Your task to perform on an android device: turn off location history Image 0: 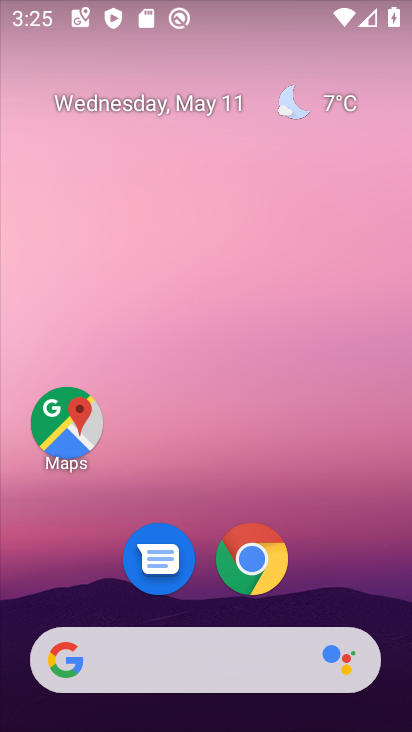
Step 0: press home button
Your task to perform on an android device: turn off location history Image 1: 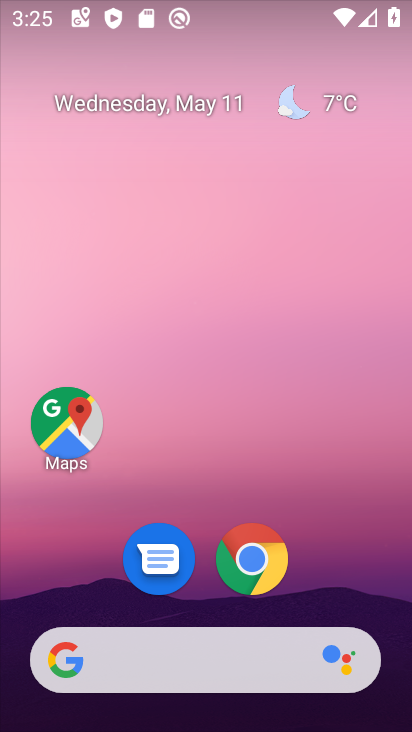
Step 1: drag from (198, 630) to (238, 271)
Your task to perform on an android device: turn off location history Image 2: 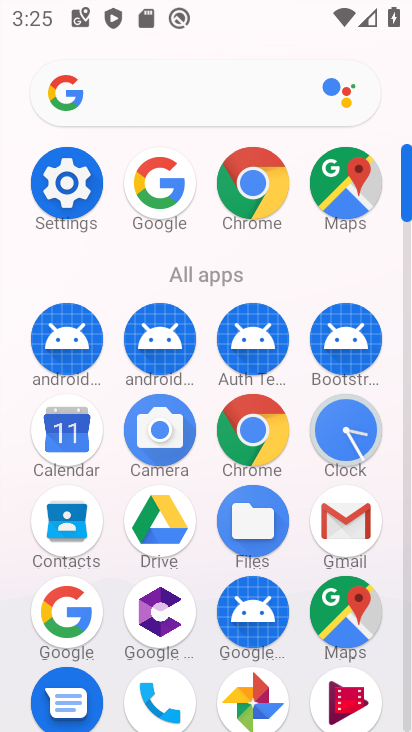
Step 2: click (63, 188)
Your task to perform on an android device: turn off location history Image 3: 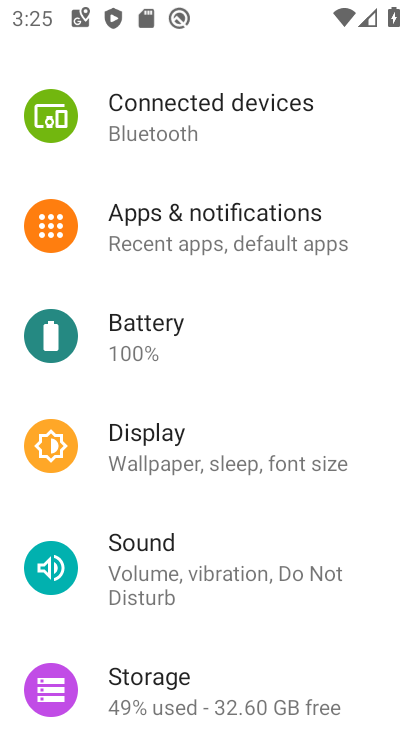
Step 3: drag from (191, 692) to (216, 220)
Your task to perform on an android device: turn off location history Image 4: 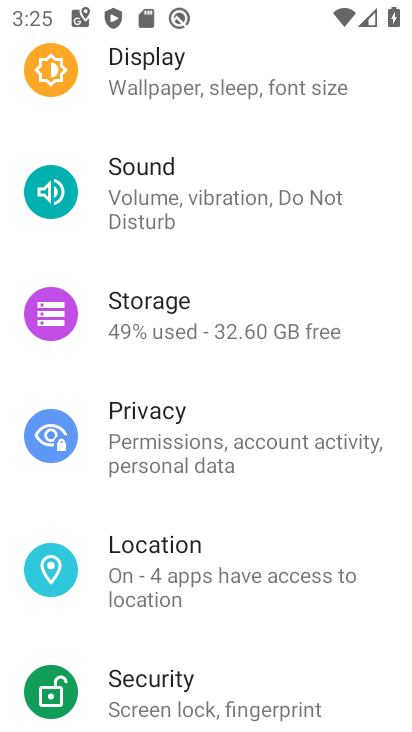
Step 4: click (165, 558)
Your task to perform on an android device: turn off location history Image 5: 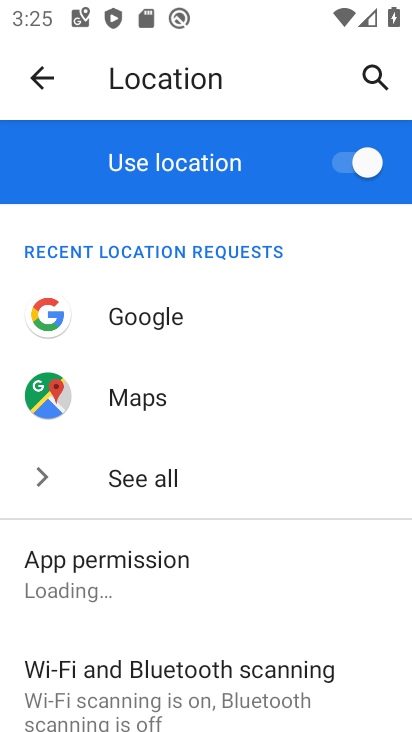
Step 5: click (132, 576)
Your task to perform on an android device: turn off location history Image 6: 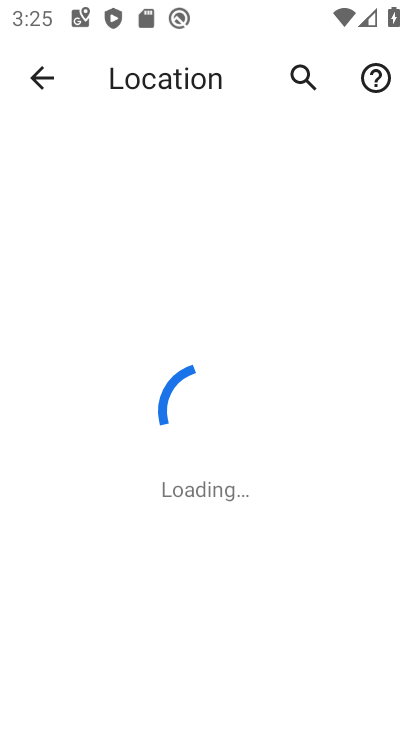
Step 6: click (124, 701)
Your task to perform on an android device: turn off location history Image 7: 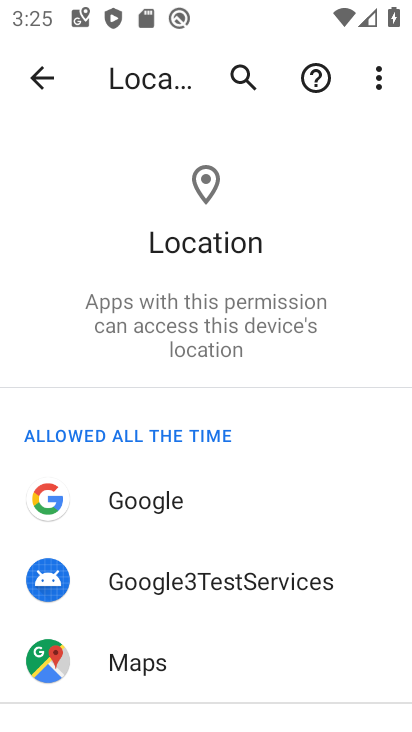
Step 7: click (46, 74)
Your task to perform on an android device: turn off location history Image 8: 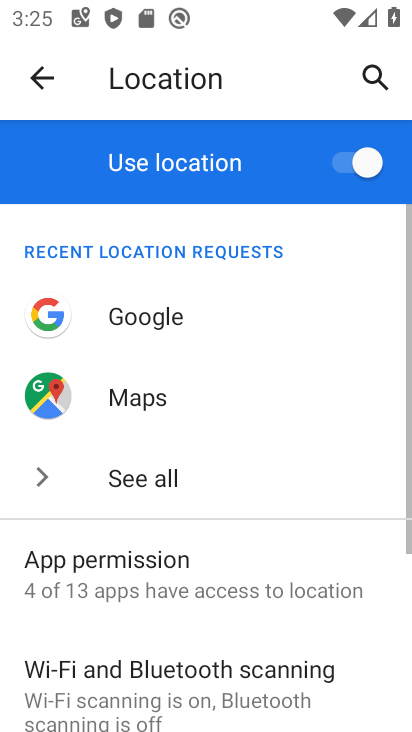
Step 8: drag from (195, 691) to (179, 304)
Your task to perform on an android device: turn off location history Image 9: 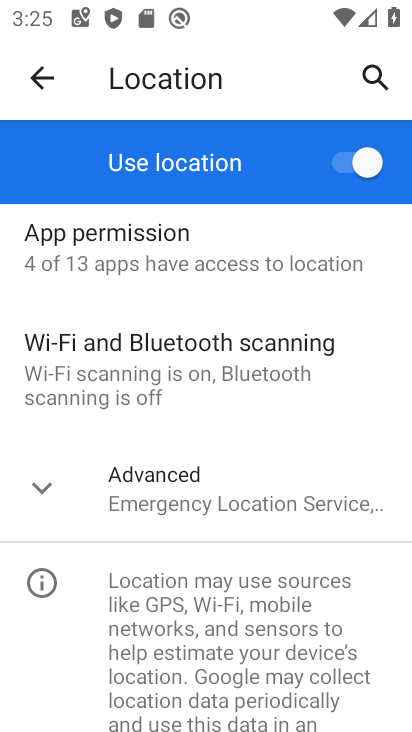
Step 9: click (30, 492)
Your task to perform on an android device: turn off location history Image 10: 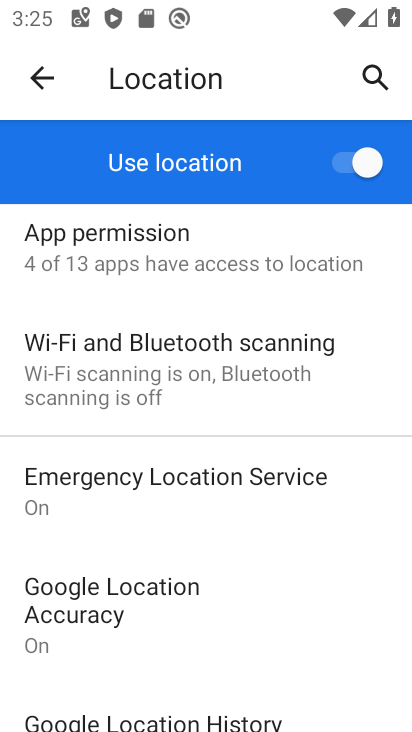
Step 10: drag from (127, 699) to (169, 410)
Your task to perform on an android device: turn off location history Image 11: 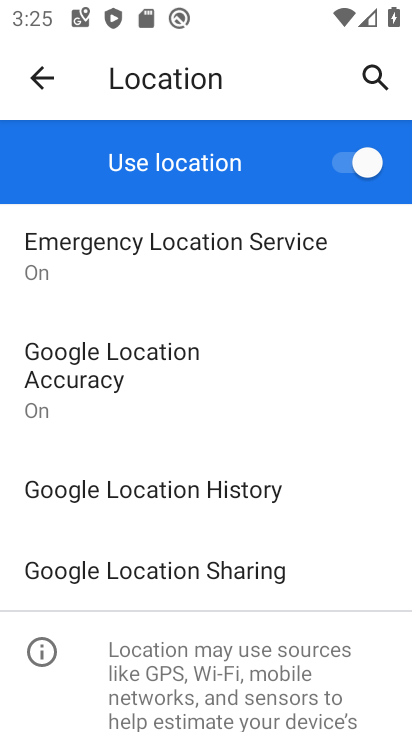
Step 11: click (104, 495)
Your task to perform on an android device: turn off location history Image 12: 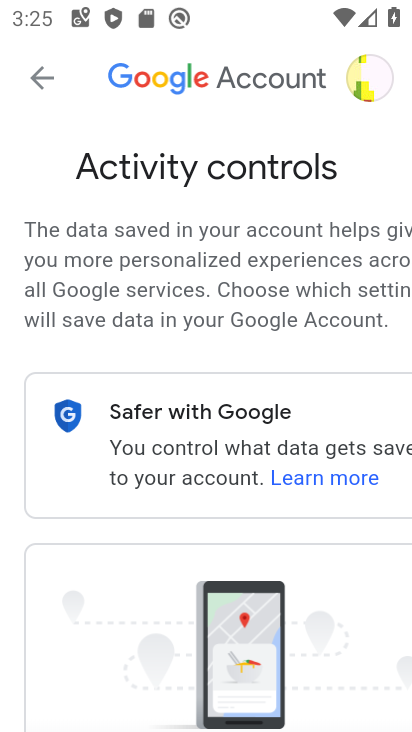
Step 12: drag from (310, 697) to (253, 207)
Your task to perform on an android device: turn off location history Image 13: 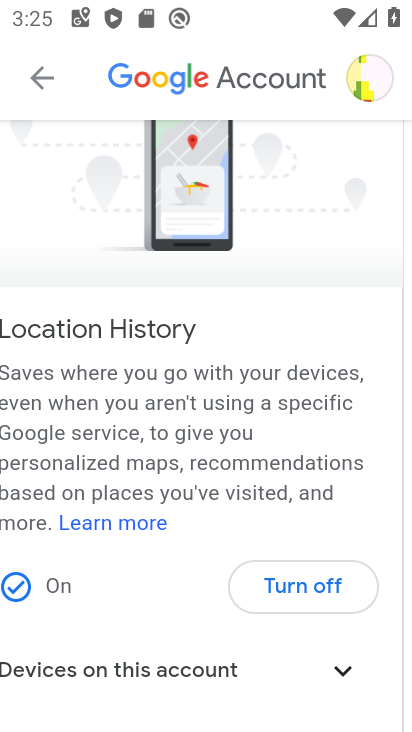
Step 13: click (307, 590)
Your task to perform on an android device: turn off location history Image 14: 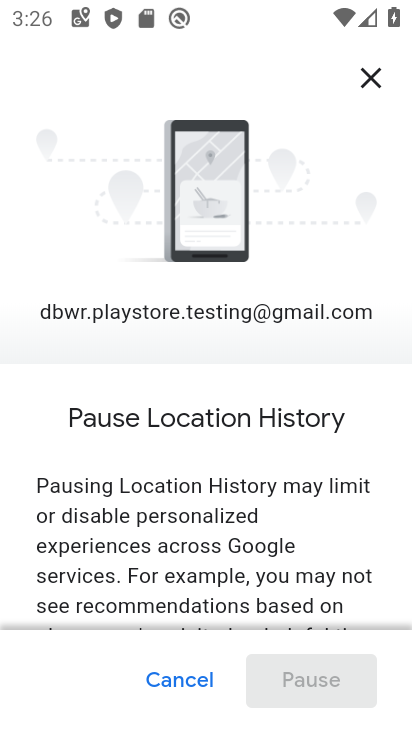
Step 14: drag from (248, 601) to (248, 167)
Your task to perform on an android device: turn off location history Image 15: 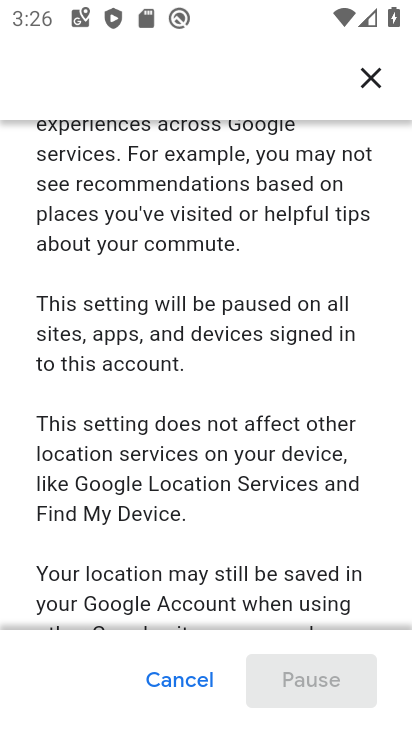
Step 15: drag from (291, 601) to (295, 191)
Your task to perform on an android device: turn off location history Image 16: 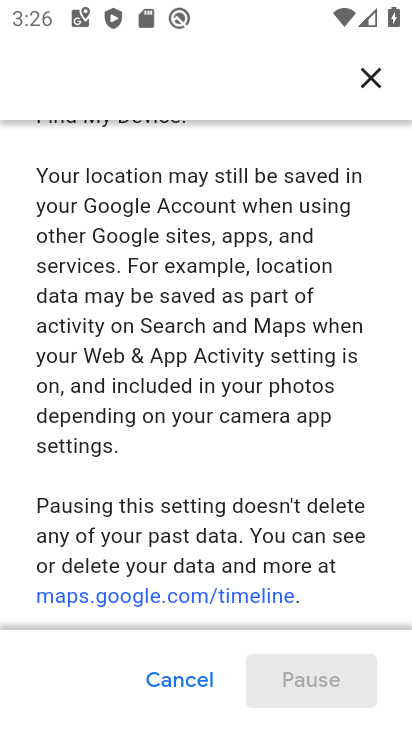
Step 16: drag from (286, 598) to (290, 201)
Your task to perform on an android device: turn off location history Image 17: 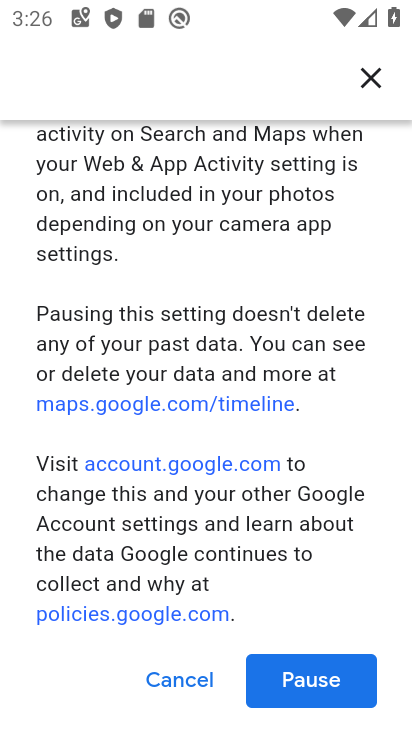
Step 17: click (315, 681)
Your task to perform on an android device: turn off location history Image 18: 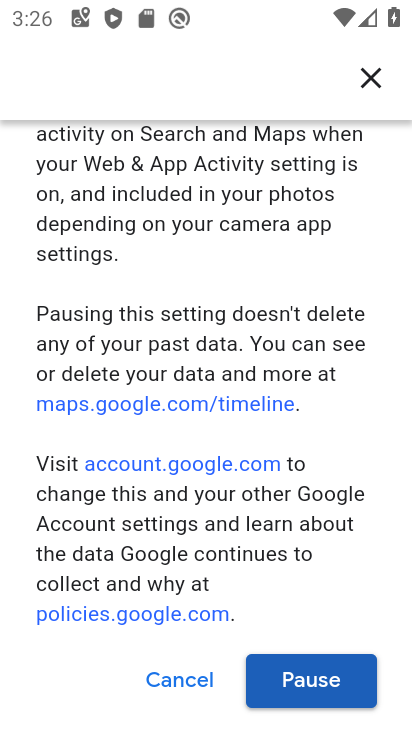
Step 18: click (292, 687)
Your task to perform on an android device: turn off location history Image 19: 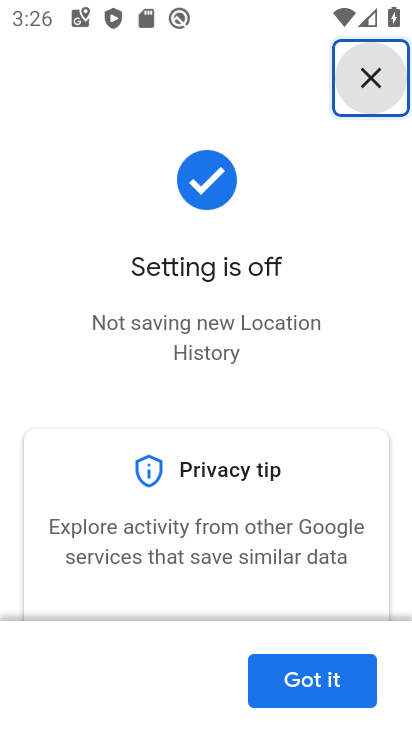
Step 19: task complete